Your task to perform on an android device: change your default location settings in chrome Image 0: 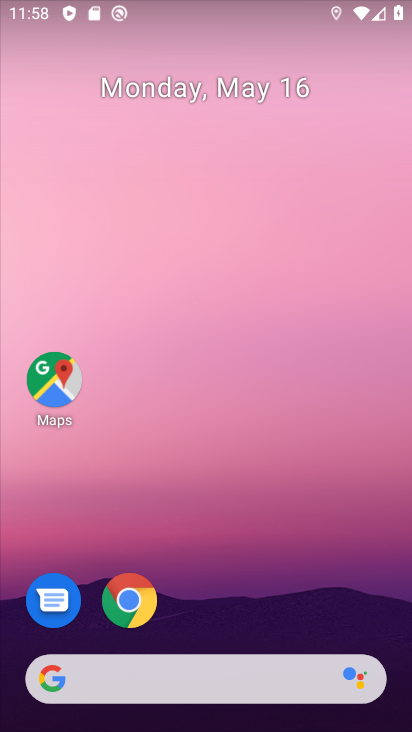
Step 0: drag from (278, 610) to (304, 220)
Your task to perform on an android device: change your default location settings in chrome Image 1: 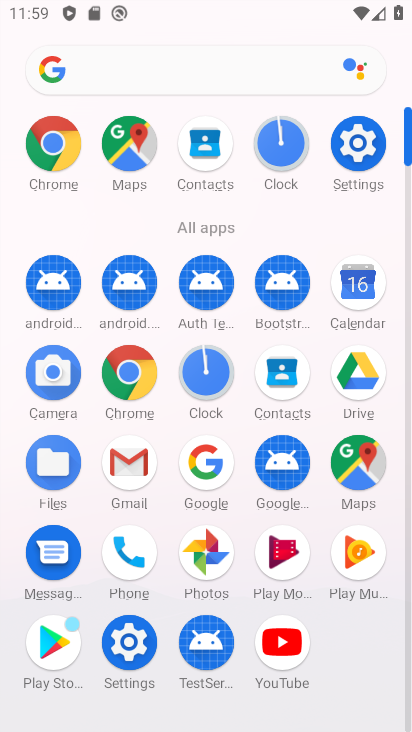
Step 1: click (59, 135)
Your task to perform on an android device: change your default location settings in chrome Image 2: 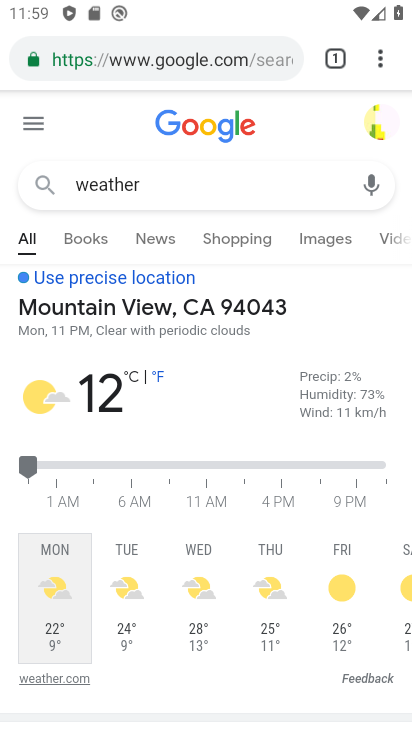
Step 2: click (386, 59)
Your task to perform on an android device: change your default location settings in chrome Image 3: 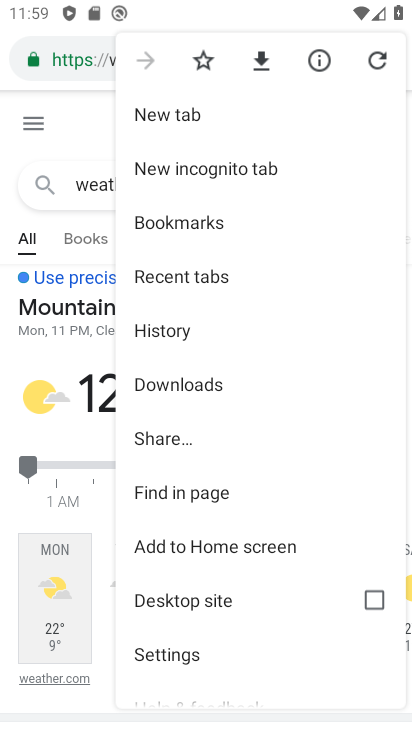
Step 3: click (213, 663)
Your task to perform on an android device: change your default location settings in chrome Image 4: 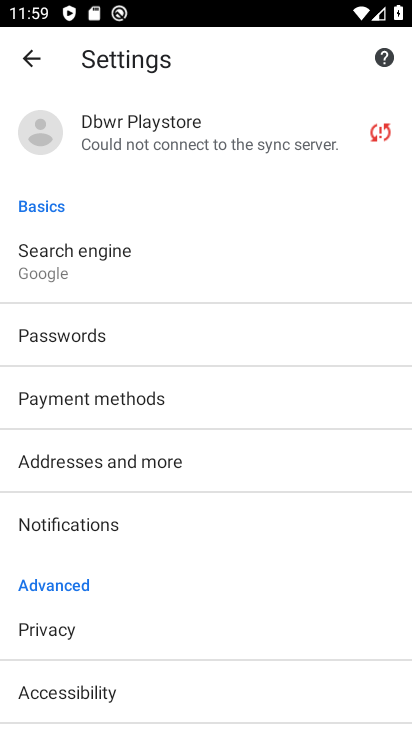
Step 4: drag from (223, 686) to (242, 283)
Your task to perform on an android device: change your default location settings in chrome Image 5: 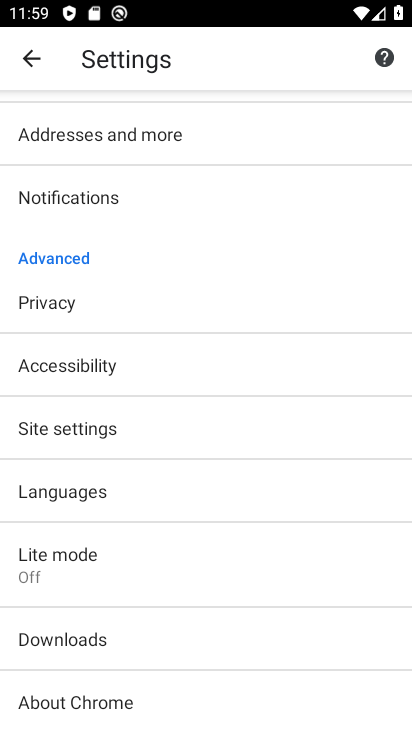
Step 5: click (258, 423)
Your task to perform on an android device: change your default location settings in chrome Image 6: 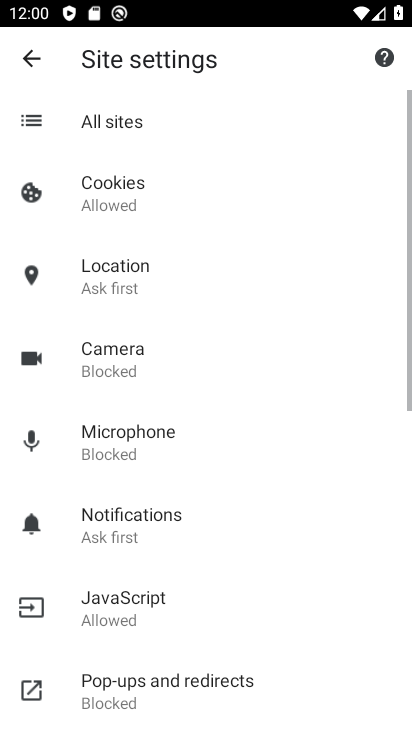
Step 6: click (267, 300)
Your task to perform on an android device: change your default location settings in chrome Image 7: 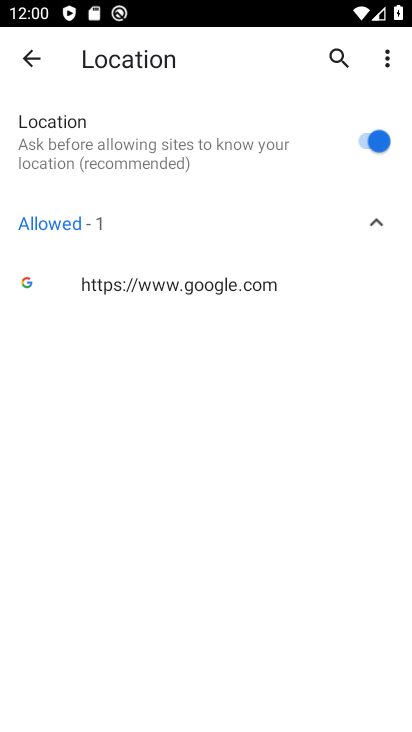
Step 7: task complete